Your task to perform on an android device: Go to Google maps Image 0: 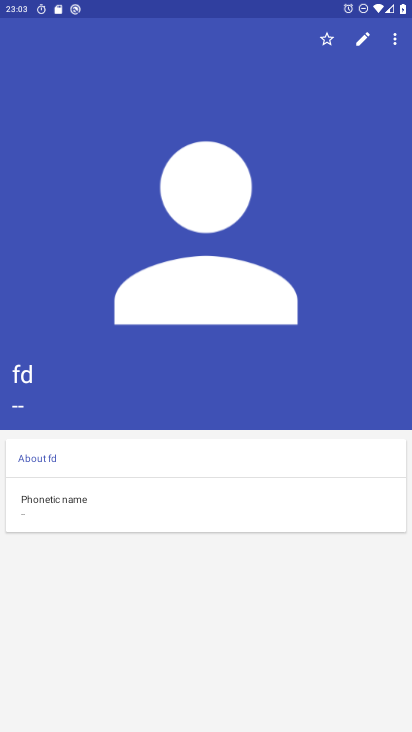
Step 0: press home button
Your task to perform on an android device: Go to Google maps Image 1: 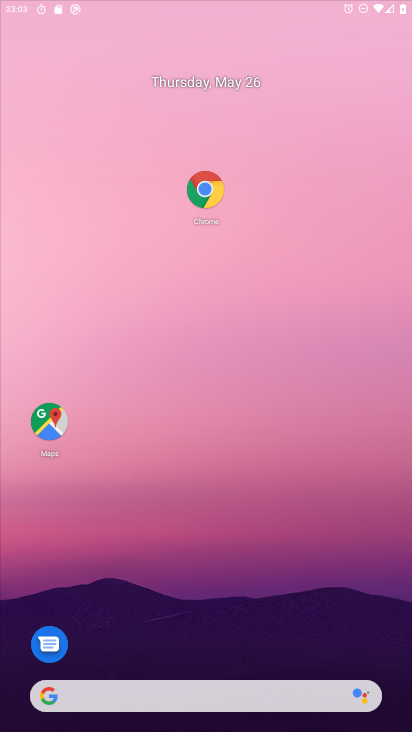
Step 1: drag from (200, 598) to (313, 136)
Your task to perform on an android device: Go to Google maps Image 2: 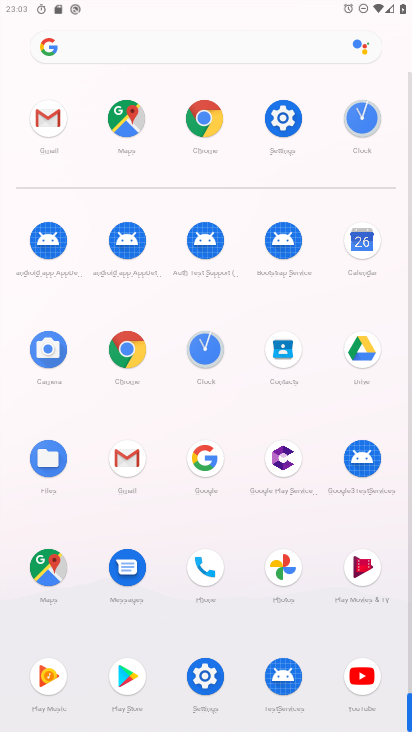
Step 2: click (45, 569)
Your task to perform on an android device: Go to Google maps Image 3: 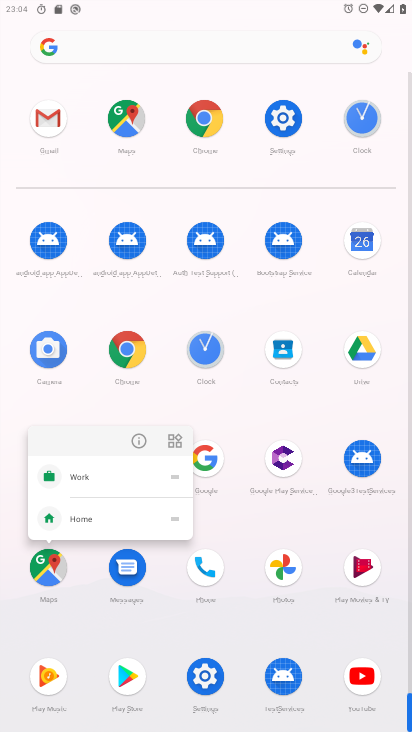
Step 3: click (126, 444)
Your task to perform on an android device: Go to Google maps Image 4: 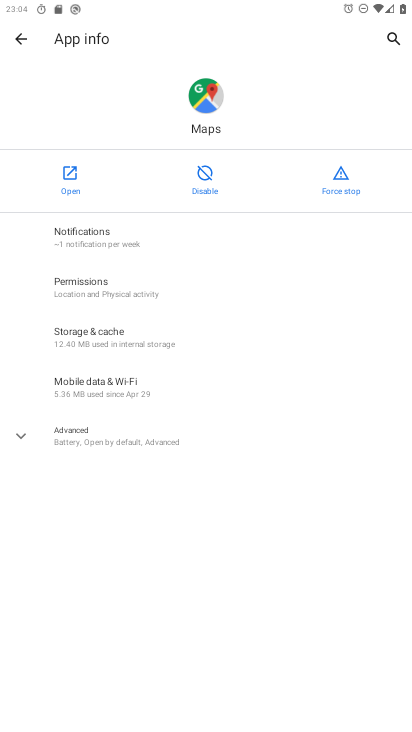
Step 4: click (68, 166)
Your task to perform on an android device: Go to Google maps Image 5: 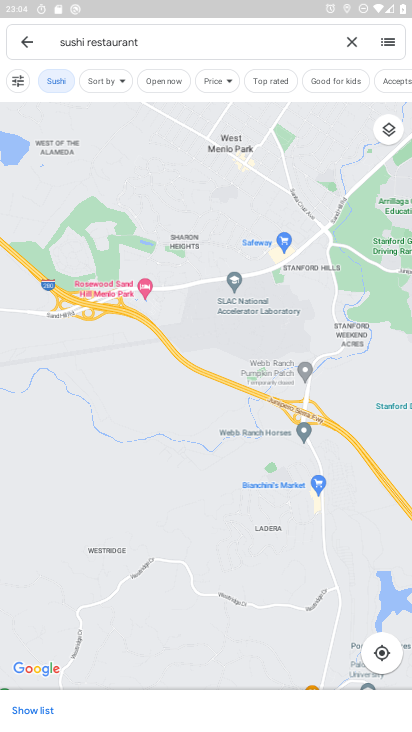
Step 5: task complete